Your task to perform on an android device: Open Google Chrome and click the shortcut for Amazon.com Image 0: 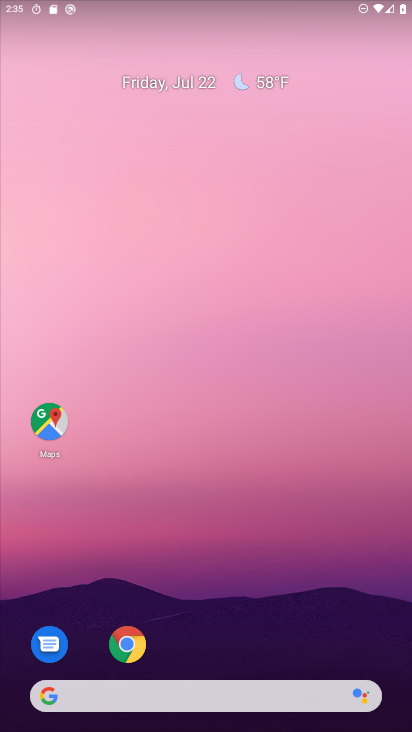
Step 0: click (125, 635)
Your task to perform on an android device: Open Google Chrome and click the shortcut for Amazon.com Image 1: 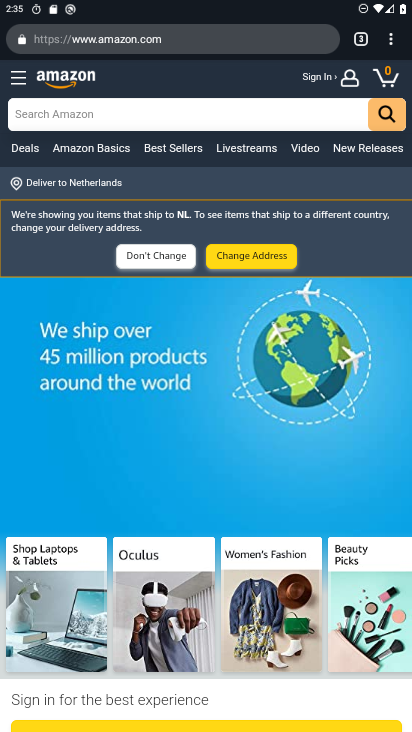
Step 1: task complete